Your task to perform on an android device: Open Google Chrome and open the bookmarks view Image 0: 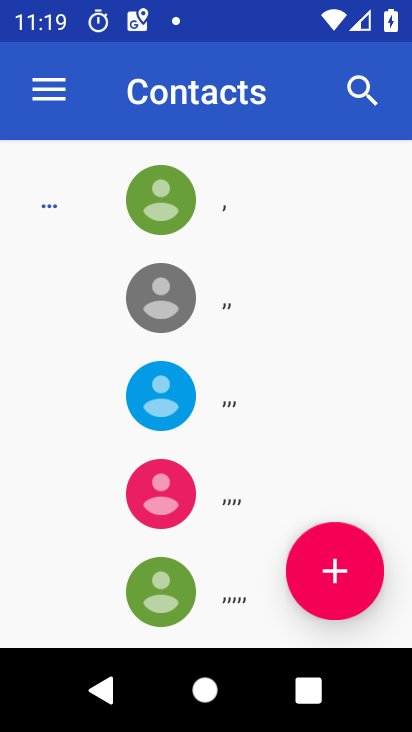
Step 0: press home button
Your task to perform on an android device: Open Google Chrome and open the bookmarks view Image 1: 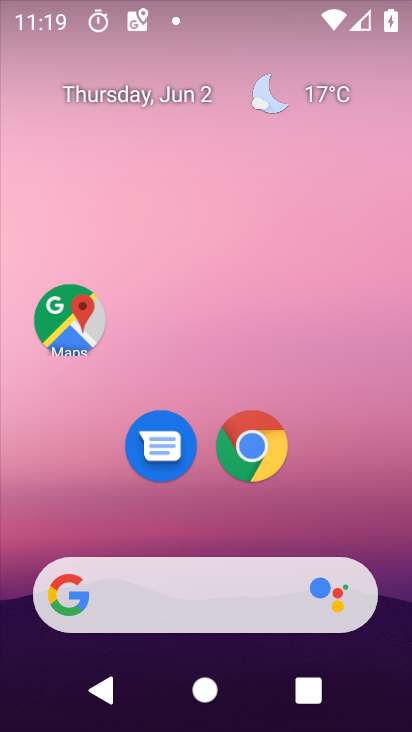
Step 1: drag from (383, 534) to (355, 167)
Your task to perform on an android device: Open Google Chrome and open the bookmarks view Image 2: 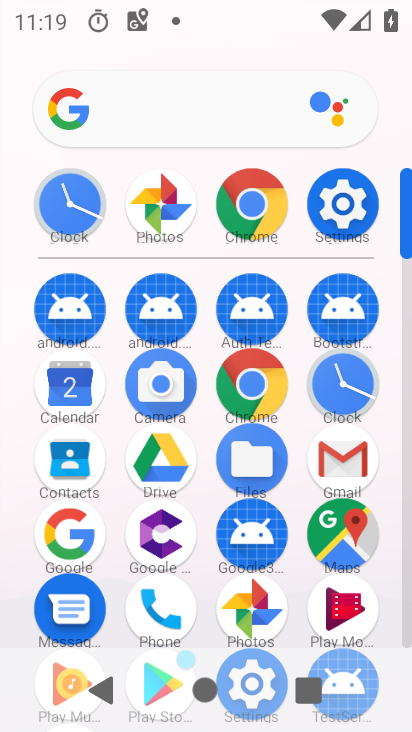
Step 2: click (274, 381)
Your task to perform on an android device: Open Google Chrome and open the bookmarks view Image 3: 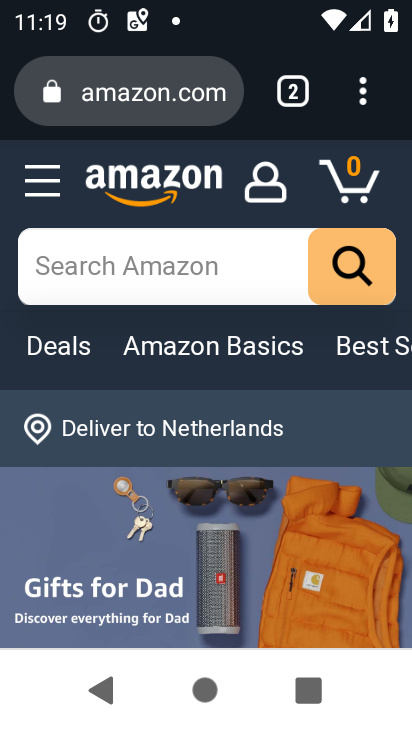
Step 3: click (365, 103)
Your task to perform on an android device: Open Google Chrome and open the bookmarks view Image 4: 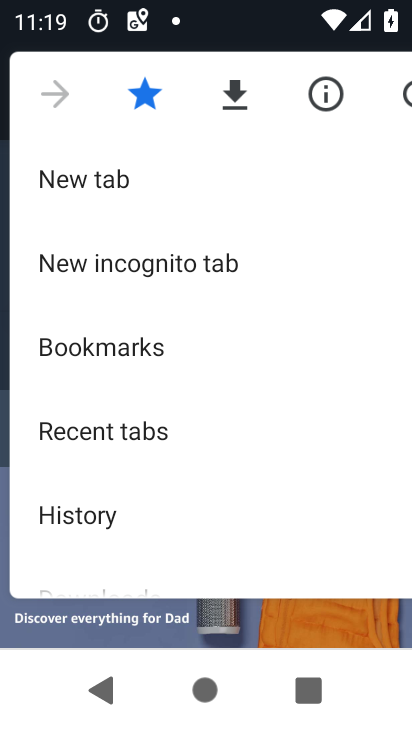
Step 4: click (153, 346)
Your task to perform on an android device: Open Google Chrome and open the bookmarks view Image 5: 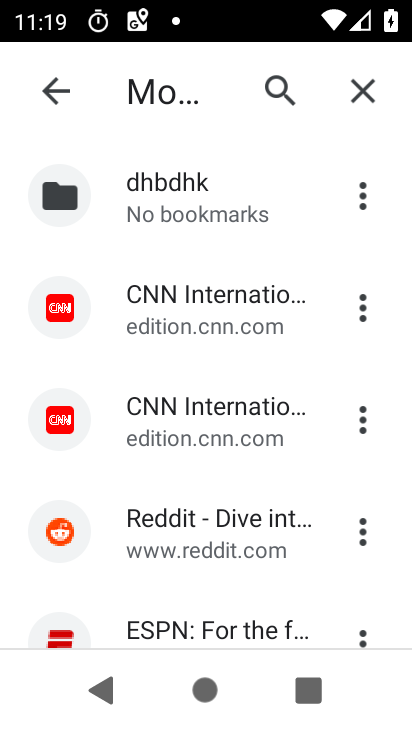
Step 5: task complete